Your task to perform on an android device: Set an alarm for 6am Image 0: 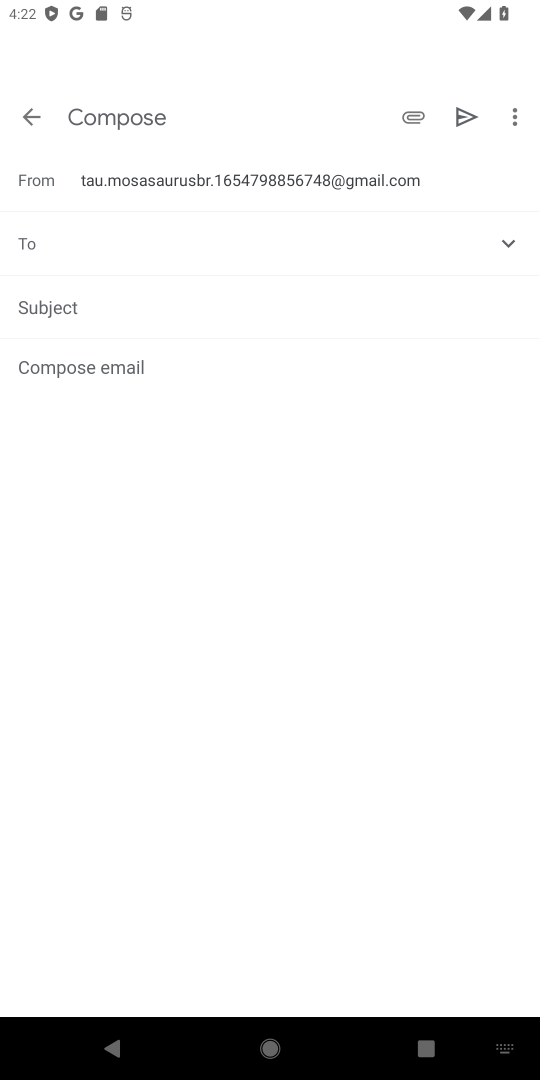
Step 0: press home button
Your task to perform on an android device: Set an alarm for 6am Image 1: 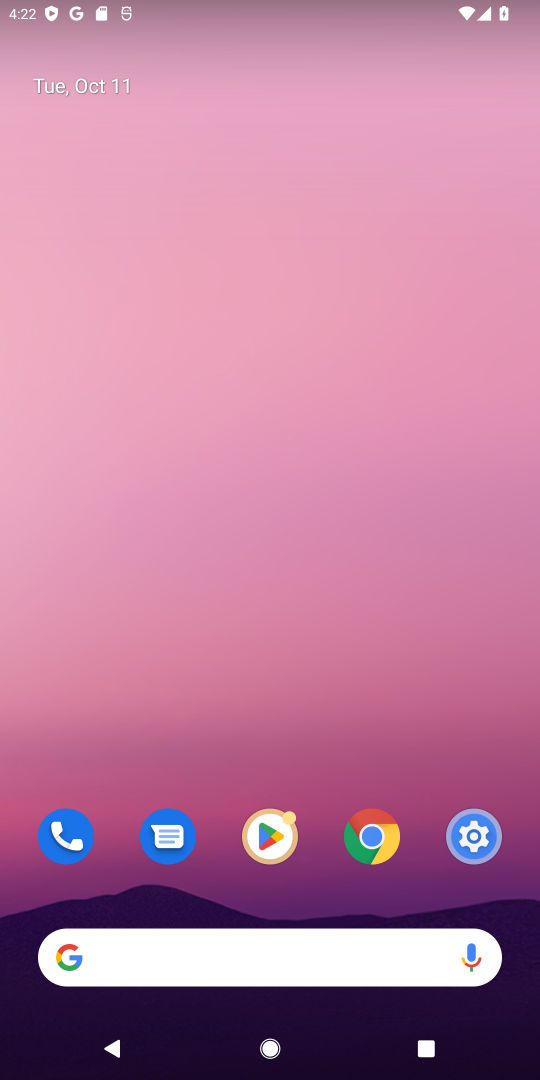
Step 1: drag from (197, 905) to (184, 59)
Your task to perform on an android device: Set an alarm for 6am Image 2: 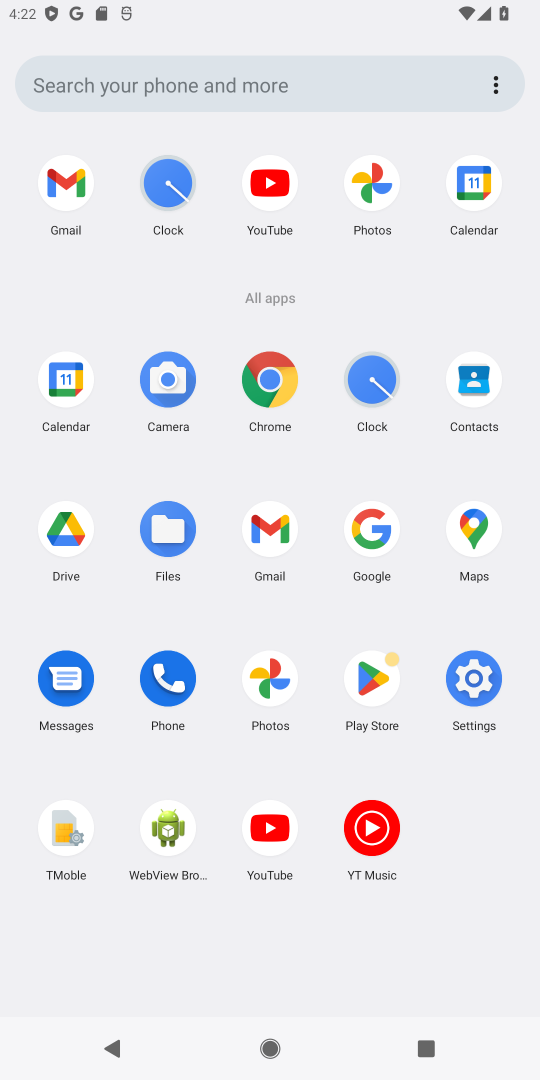
Step 2: click (373, 409)
Your task to perform on an android device: Set an alarm for 6am Image 3: 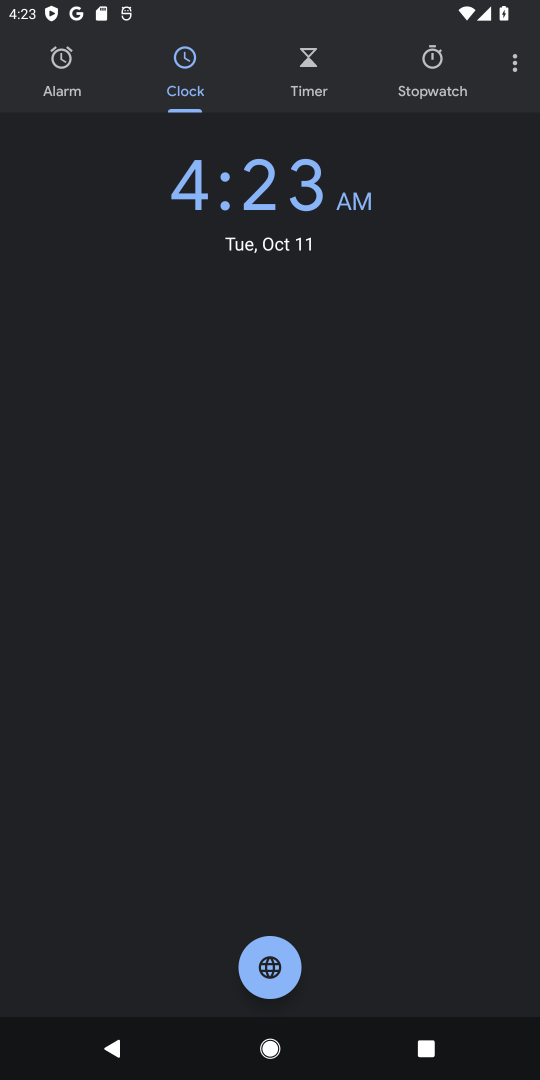
Step 3: click (61, 68)
Your task to perform on an android device: Set an alarm for 6am Image 4: 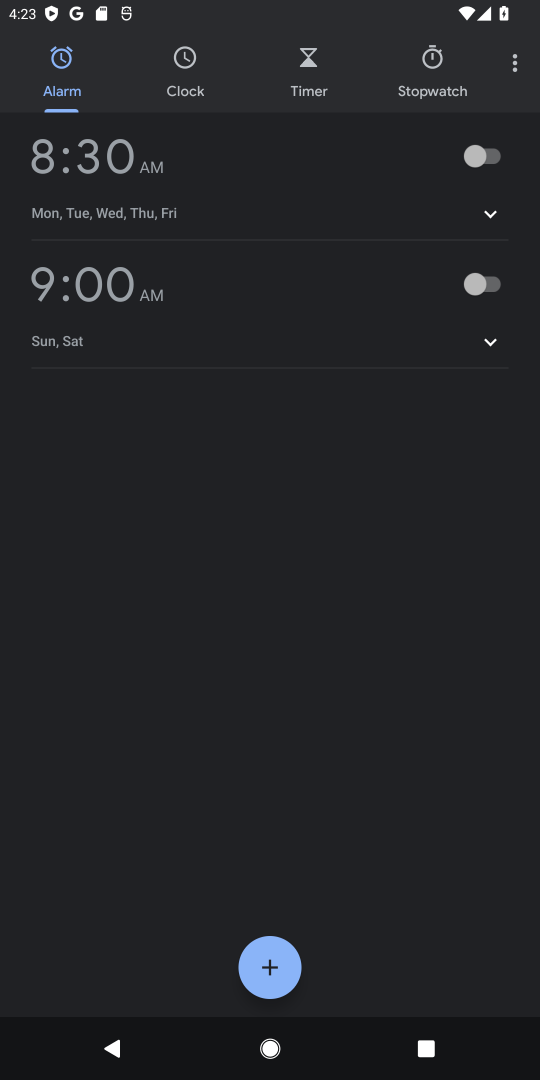
Step 4: click (287, 965)
Your task to perform on an android device: Set an alarm for 6am Image 5: 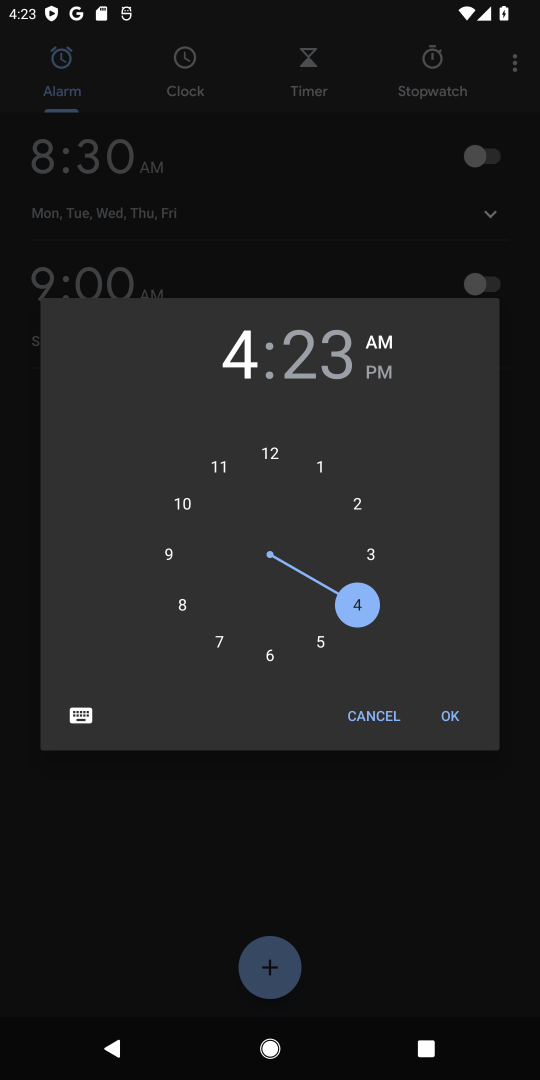
Step 5: click (272, 660)
Your task to perform on an android device: Set an alarm for 6am Image 6: 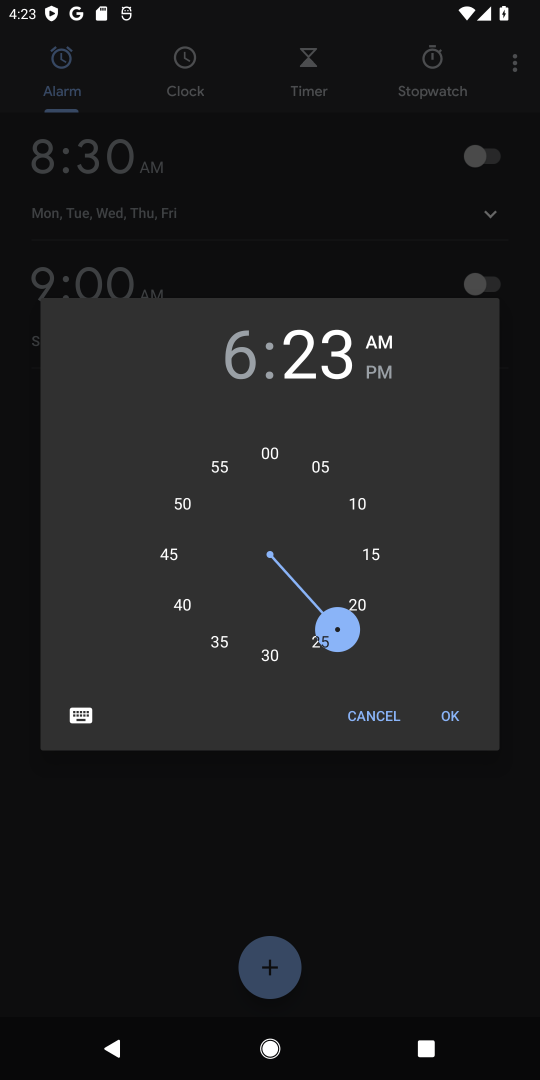
Step 6: click (264, 459)
Your task to perform on an android device: Set an alarm for 6am Image 7: 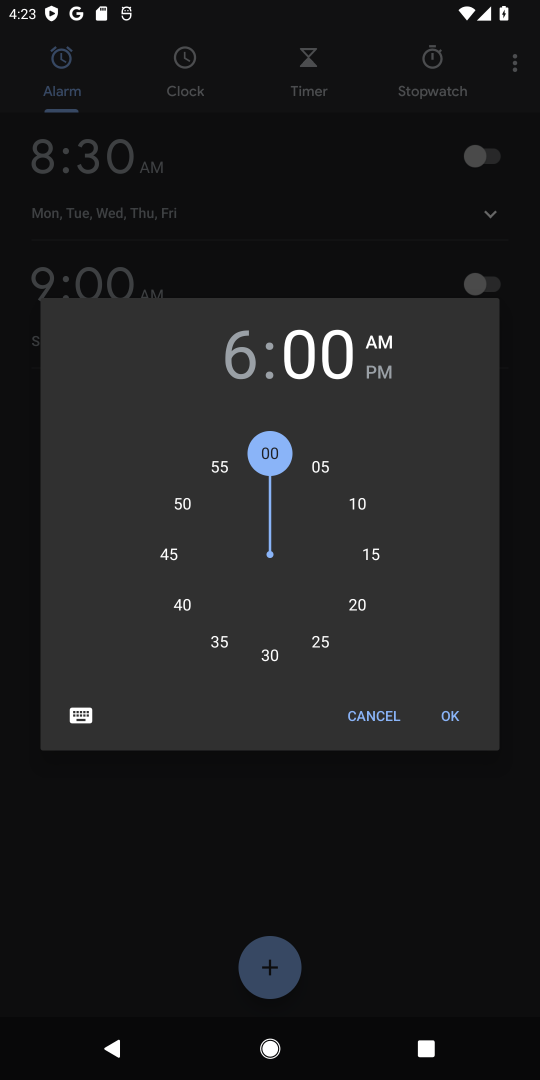
Step 7: click (461, 712)
Your task to perform on an android device: Set an alarm for 6am Image 8: 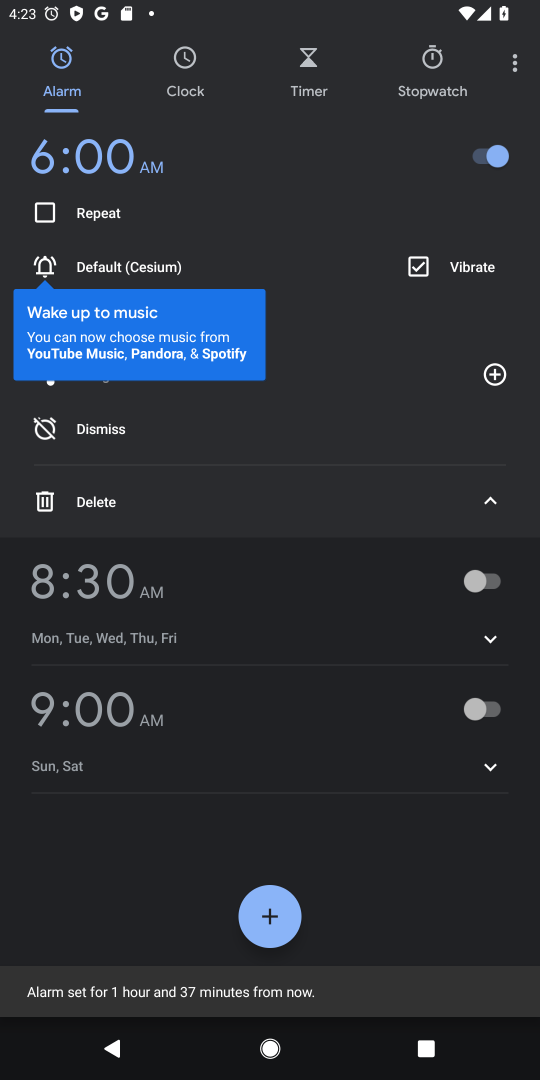
Step 8: task complete